Your task to perform on an android device: search for starred emails in the gmail app Image 0: 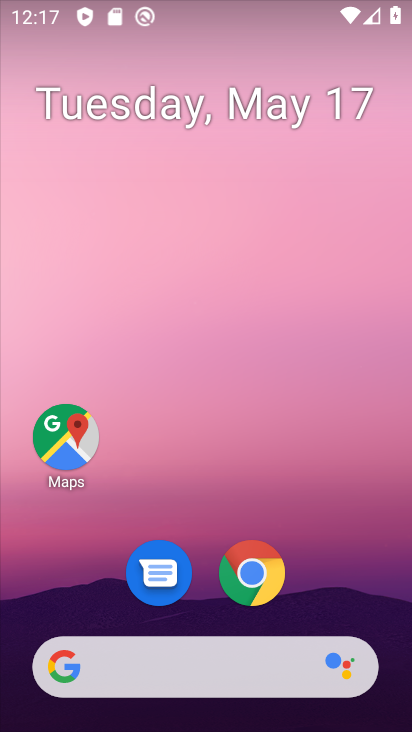
Step 0: drag from (209, 619) to (244, 82)
Your task to perform on an android device: search for starred emails in the gmail app Image 1: 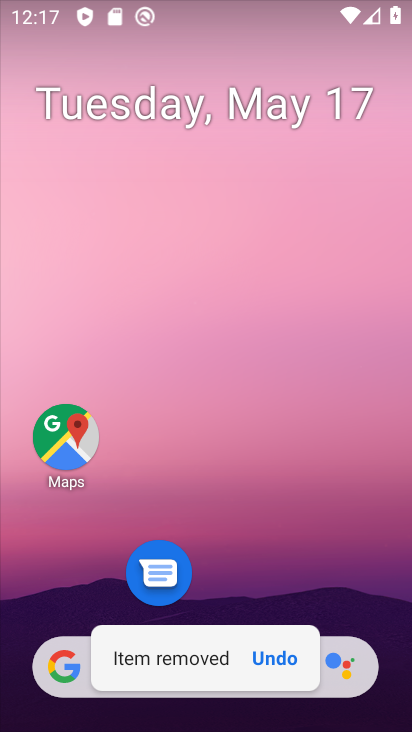
Step 1: click (272, 658)
Your task to perform on an android device: search for starred emails in the gmail app Image 2: 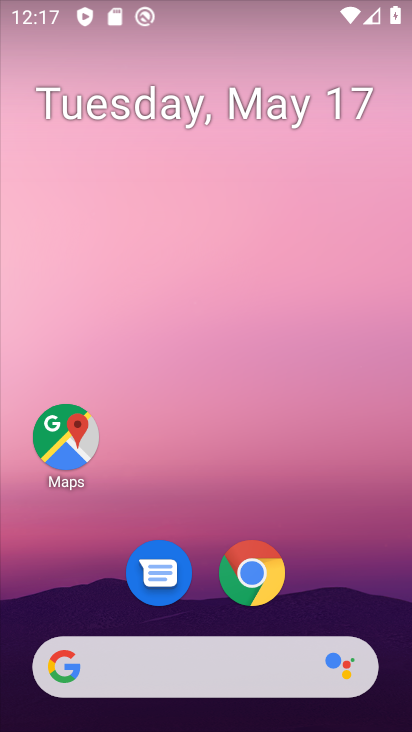
Step 2: drag from (307, 612) to (373, 33)
Your task to perform on an android device: search for starred emails in the gmail app Image 3: 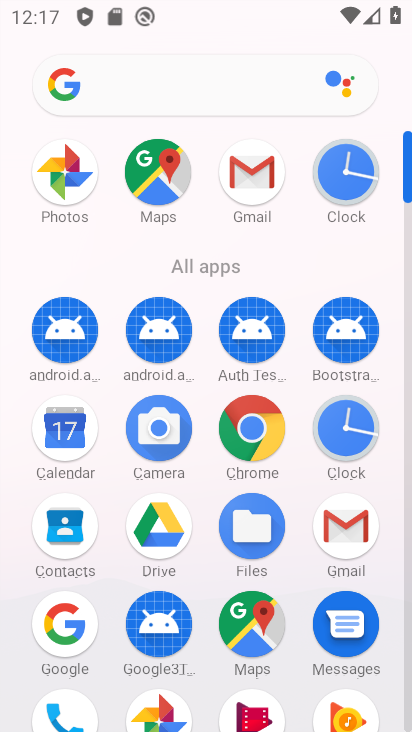
Step 3: click (250, 169)
Your task to perform on an android device: search for starred emails in the gmail app Image 4: 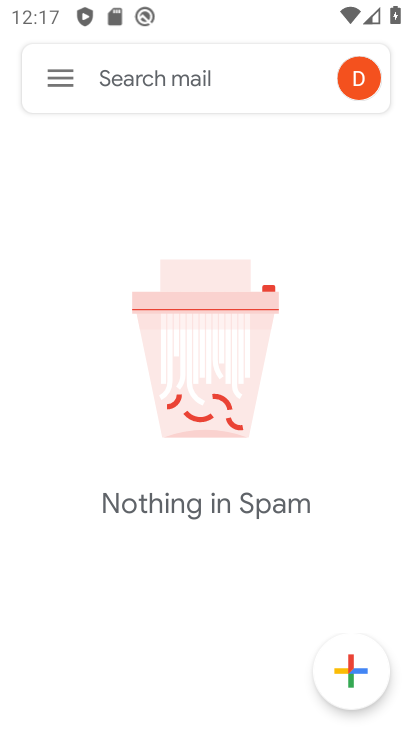
Step 4: click (61, 77)
Your task to perform on an android device: search for starred emails in the gmail app Image 5: 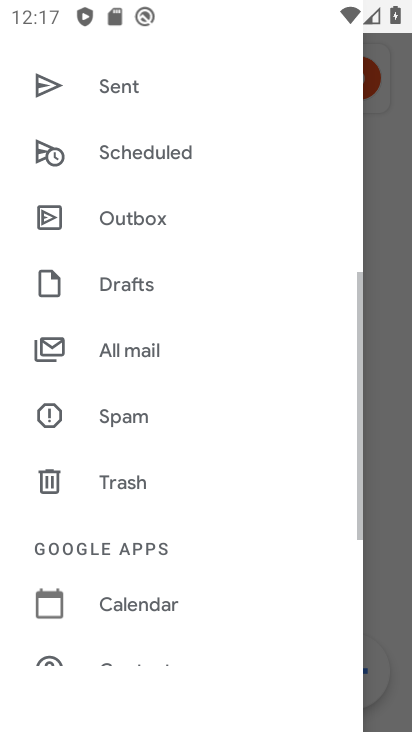
Step 5: drag from (143, 145) to (123, 572)
Your task to perform on an android device: search for starred emails in the gmail app Image 6: 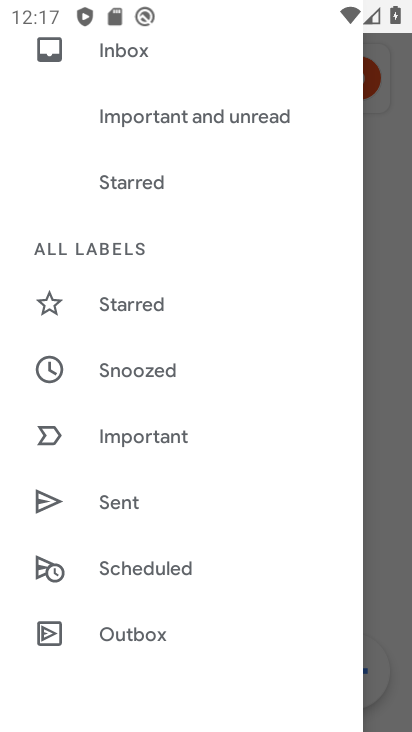
Step 6: click (171, 307)
Your task to perform on an android device: search for starred emails in the gmail app Image 7: 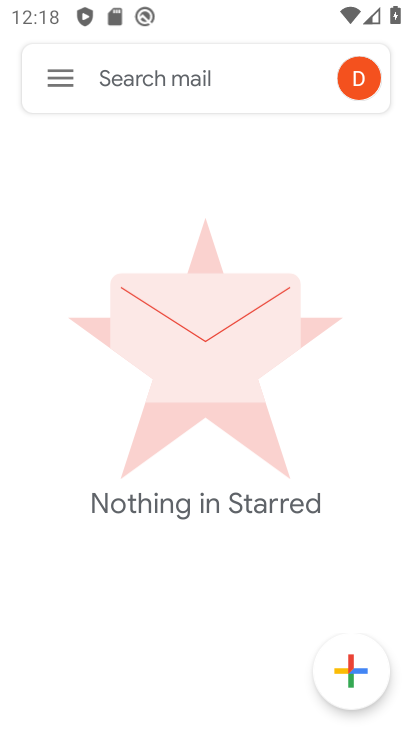
Step 7: task complete